Your task to perform on an android device: clear all cookies in the chrome app Image 0: 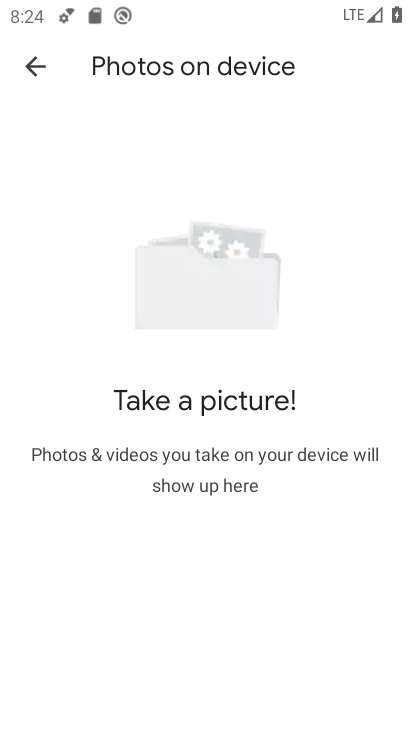
Step 0: press home button
Your task to perform on an android device: clear all cookies in the chrome app Image 1: 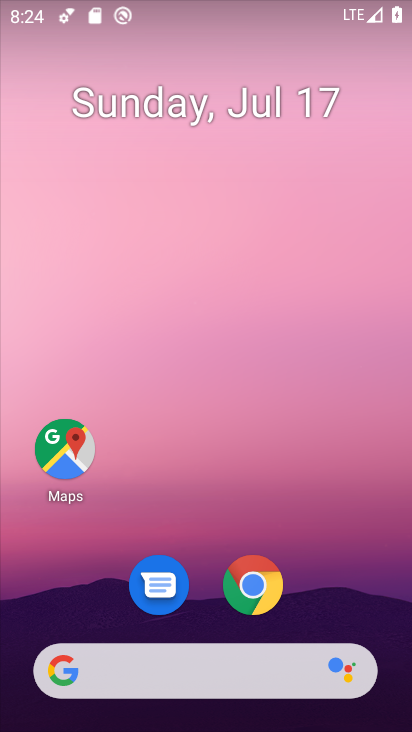
Step 1: click (246, 590)
Your task to perform on an android device: clear all cookies in the chrome app Image 2: 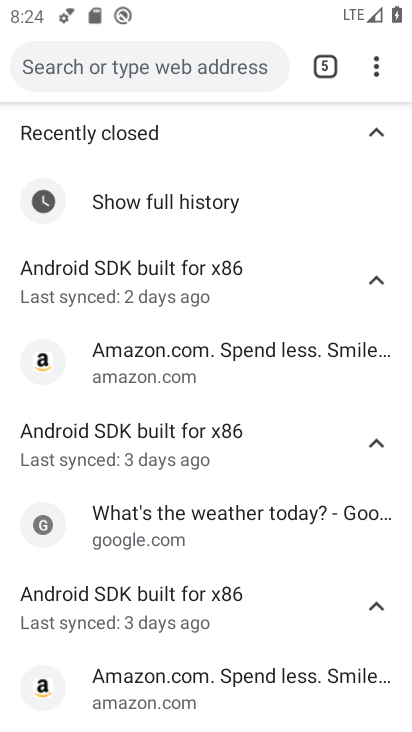
Step 2: click (370, 62)
Your task to perform on an android device: clear all cookies in the chrome app Image 3: 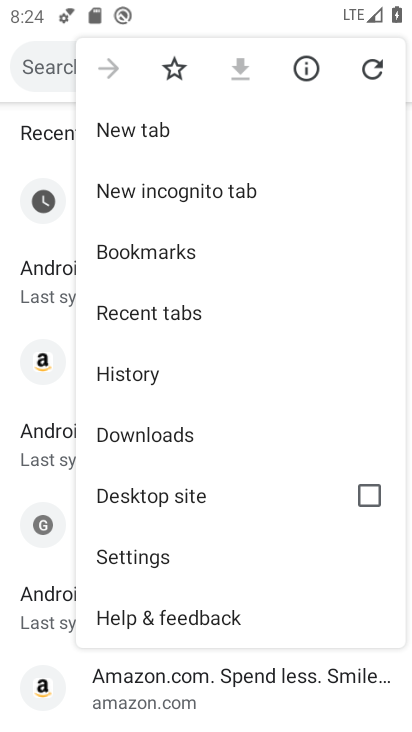
Step 3: click (155, 558)
Your task to perform on an android device: clear all cookies in the chrome app Image 4: 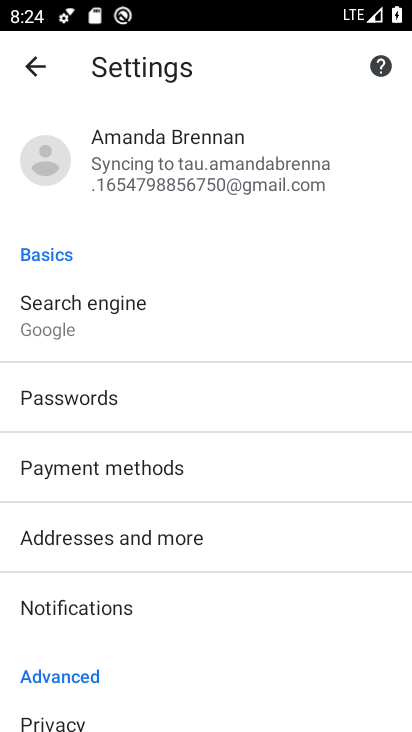
Step 4: drag from (208, 607) to (237, 391)
Your task to perform on an android device: clear all cookies in the chrome app Image 5: 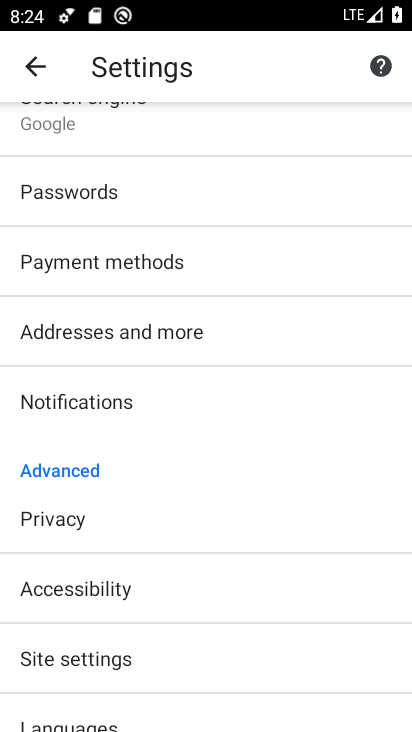
Step 5: click (65, 521)
Your task to perform on an android device: clear all cookies in the chrome app Image 6: 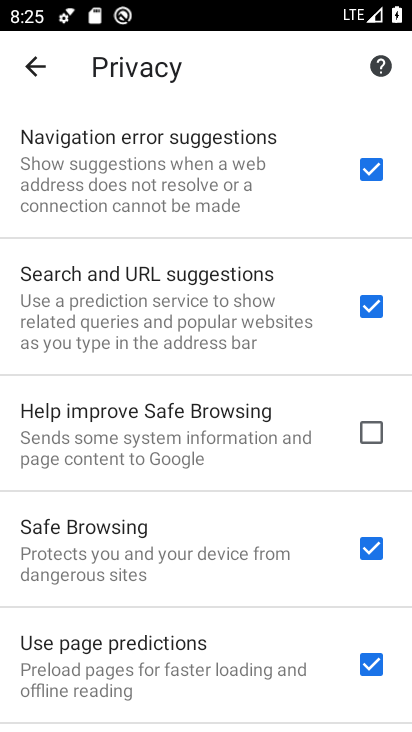
Step 6: drag from (266, 630) to (246, 4)
Your task to perform on an android device: clear all cookies in the chrome app Image 7: 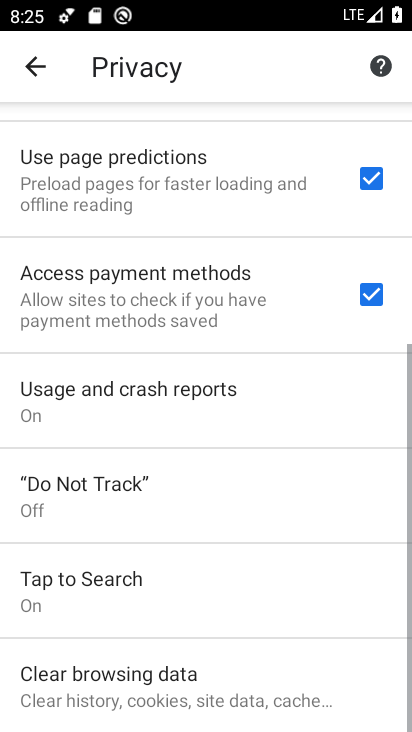
Step 7: drag from (268, 560) to (240, 88)
Your task to perform on an android device: clear all cookies in the chrome app Image 8: 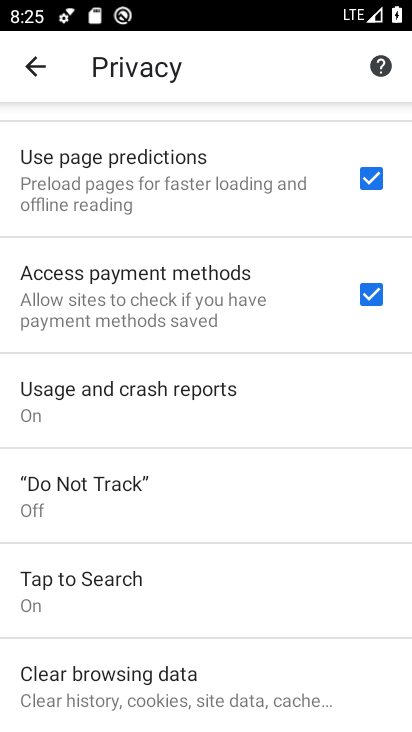
Step 8: click (168, 678)
Your task to perform on an android device: clear all cookies in the chrome app Image 9: 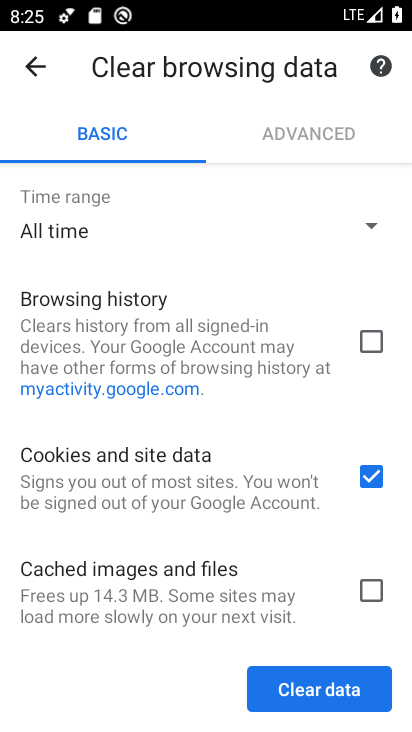
Step 9: click (289, 690)
Your task to perform on an android device: clear all cookies in the chrome app Image 10: 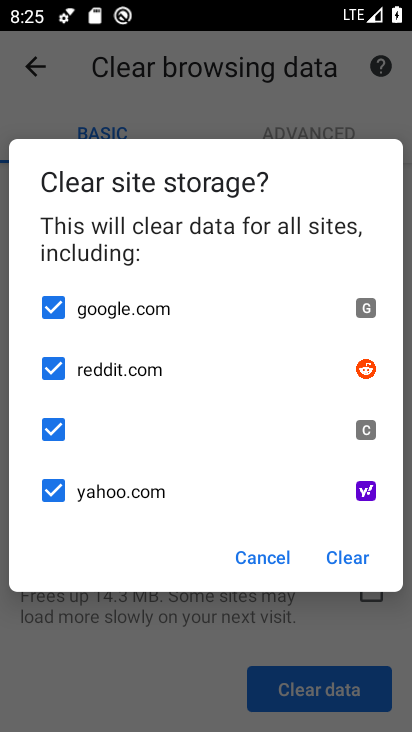
Step 10: click (340, 544)
Your task to perform on an android device: clear all cookies in the chrome app Image 11: 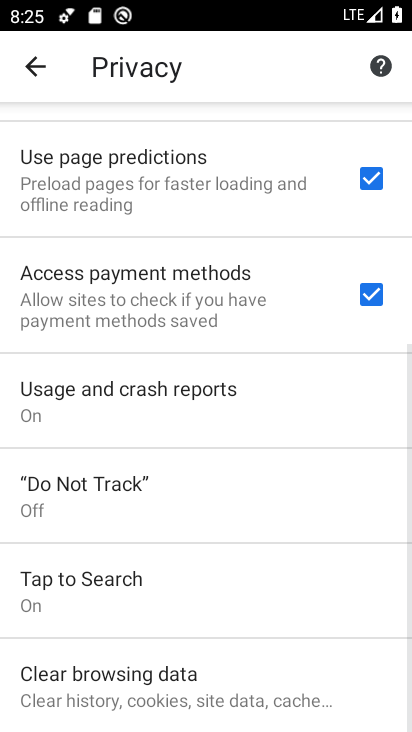
Step 11: task complete